Your task to perform on an android device: Open Chrome and go to the settings page Image 0: 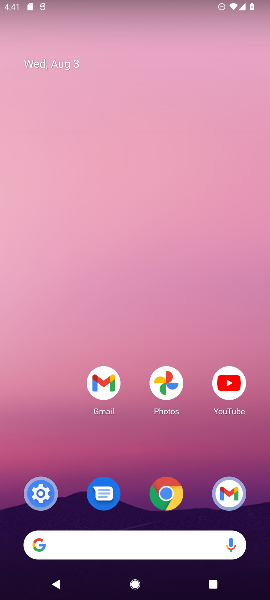
Step 0: drag from (59, 441) to (60, 124)
Your task to perform on an android device: Open Chrome and go to the settings page Image 1: 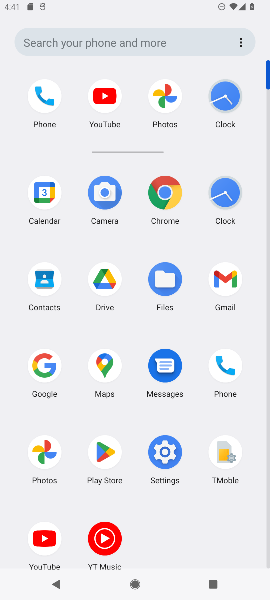
Step 1: click (162, 196)
Your task to perform on an android device: Open Chrome and go to the settings page Image 2: 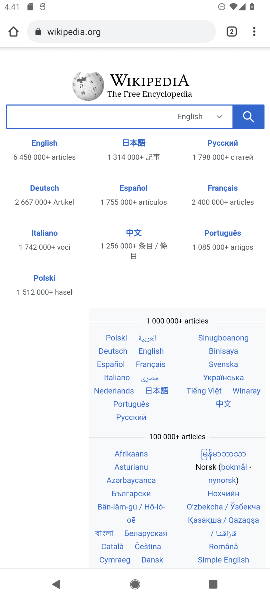
Step 2: click (254, 30)
Your task to perform on an android device: Open Chrome and go to the settings page Image 3: 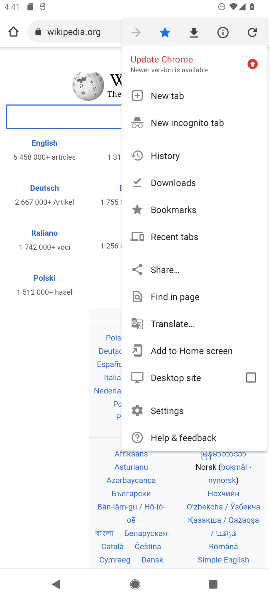
Step 3: click (203, 410)
Your task to perform on an android device: Open Chrome and go to the settings page Image 4: 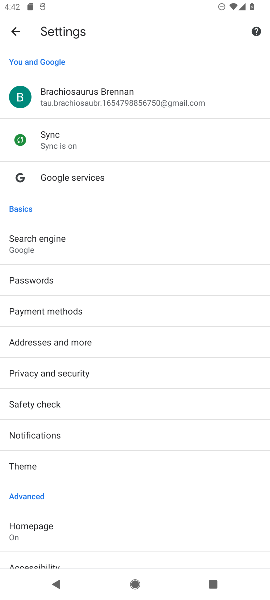
Step 4: task complete